Your task to perform on an android device: Open sound settings Image 0: 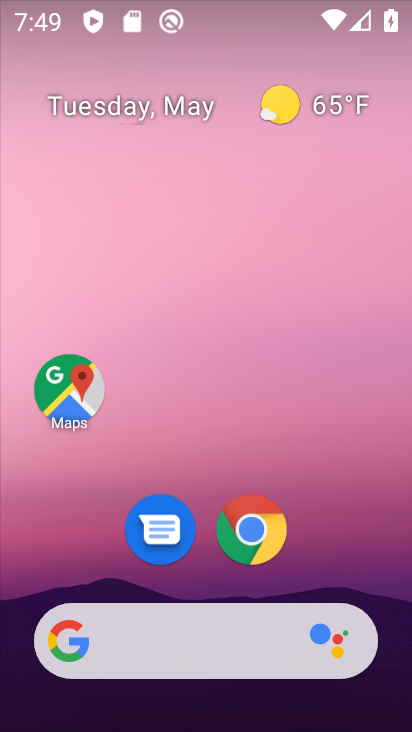
Step 0: drag from (205, 574) to (150, 15)
Your task to perform on an android device: Open sound settings Image 1: 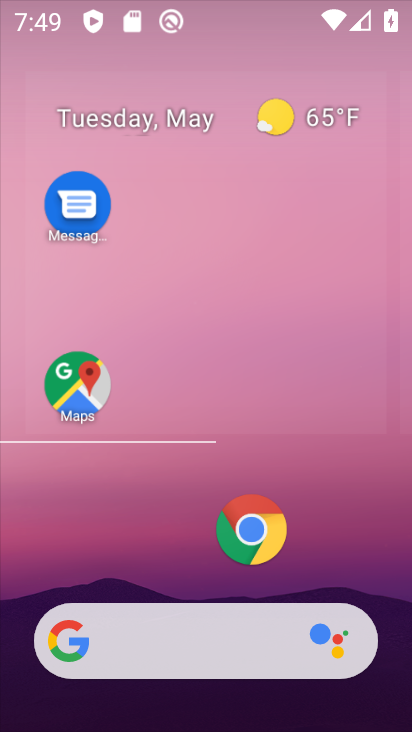
Step 1: click (168, 493)
Your task to perform on an android device: Open sound settings Image 2: 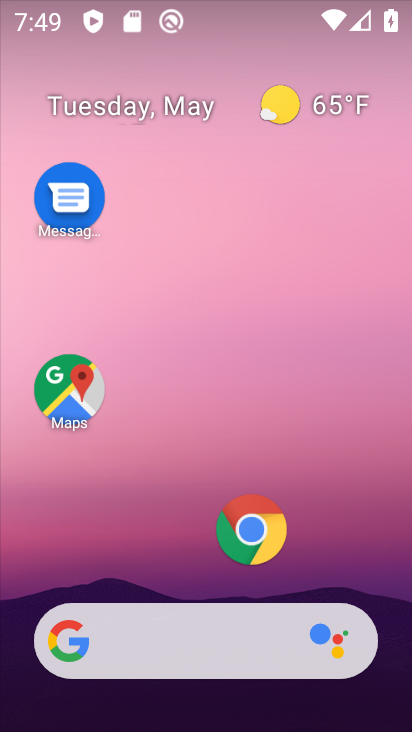
Step 2: drag from (165, 556) to (233, 36)
Your task to perform on an android device: Open sound settings Image 3: 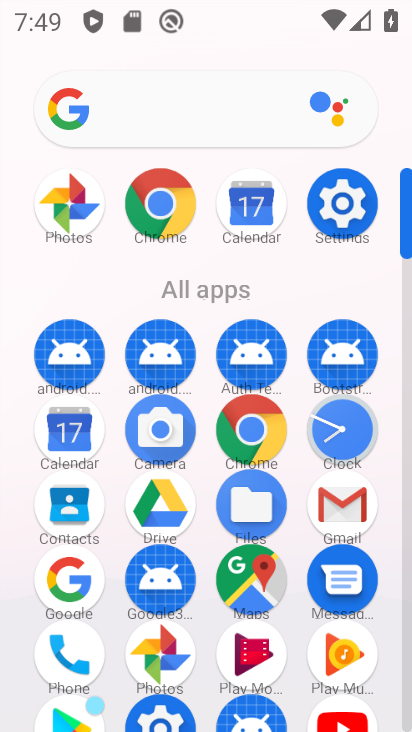
Step 3: click (342, 205)
Your task to perform on an android device: Open sound settings Image 4: 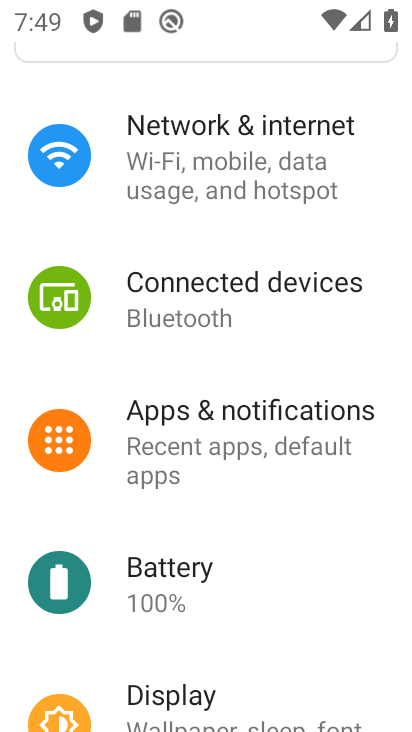
Step 4: drag from (258, 549) to (159, 83)
Your task to perform on an android device: Open sound settings Image 5: 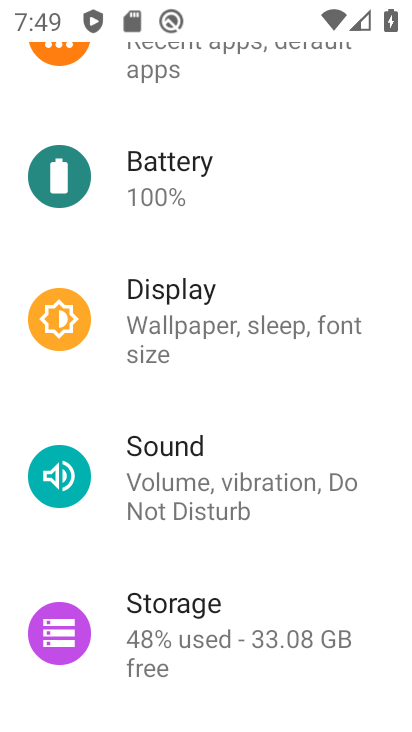
Step 5: click (164, 473)
Your task to perform on an android device: Open sound settings Image 6: 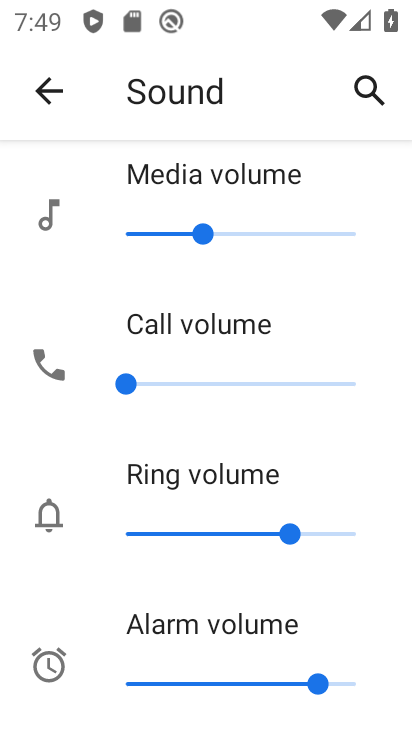
Step 6: task complete